Your task to perform on an android device: toggle wifi Image 0: 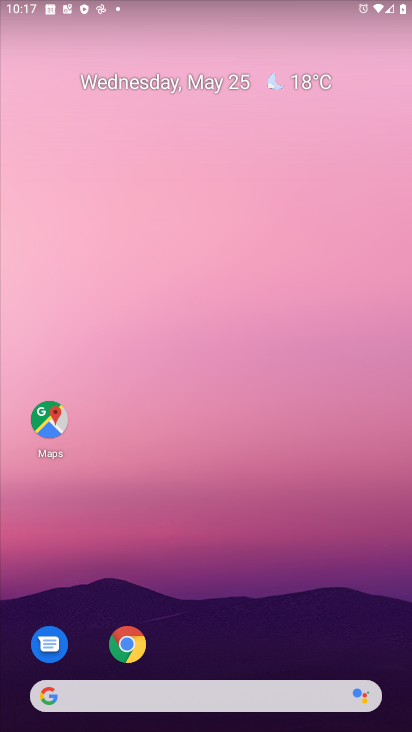
Step 0: drag from (155, 4) to (146, 630)
Your task to perform on an android device: toggle wifi Image 1: 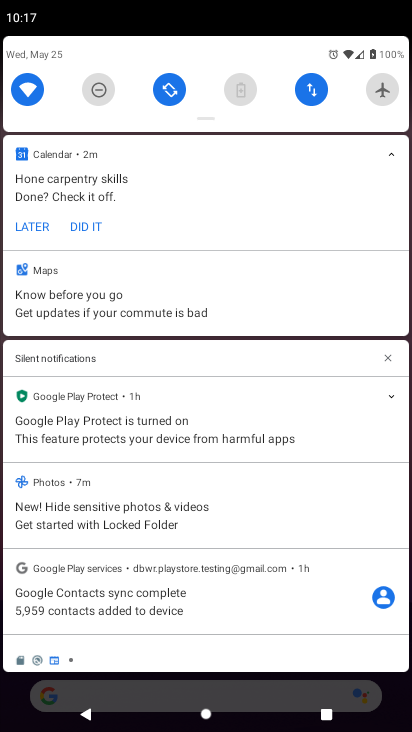
Step 1: click (25, 82)
Your task to perform on an android device: toggle wifi Image 2: 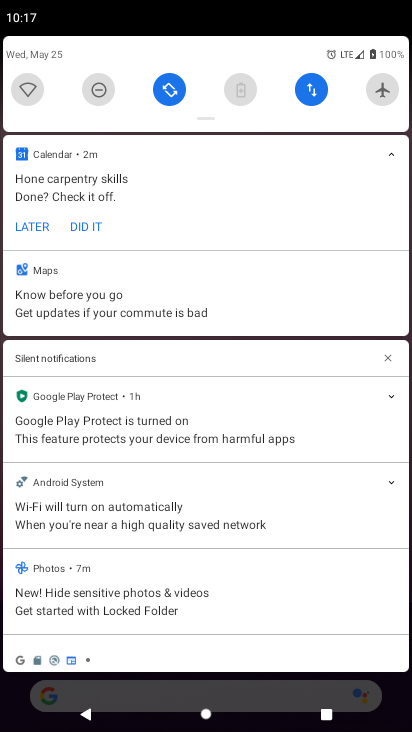
Step 2: task complete